Your task to perform on an android device: open chrome privacy settings Image 0: 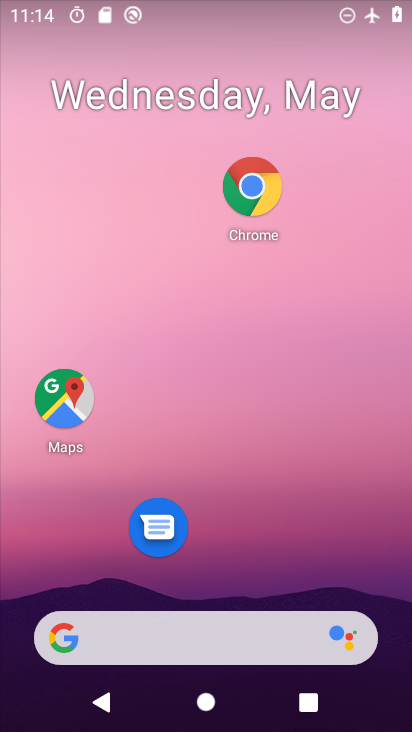
Step 0: drag from (279, 581) to (322, 8)
Your task to perform on an android device: open chrome privacy settings Image 1: 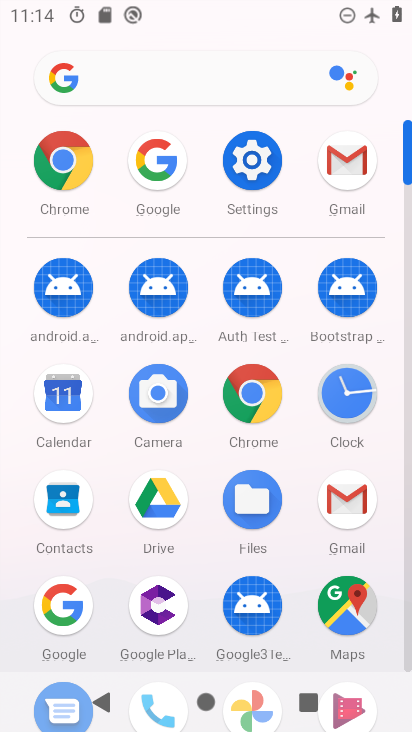
Step 1: click (39, 154)
Your task to perform on an android device: open chrome privacy settings Image 2: 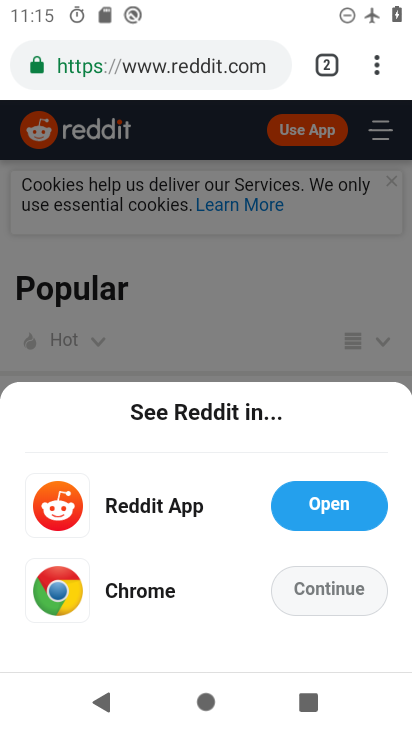
Step 2: click (378, 72)
Your task to perform on an android device: open chrome privacy settings Image 3: 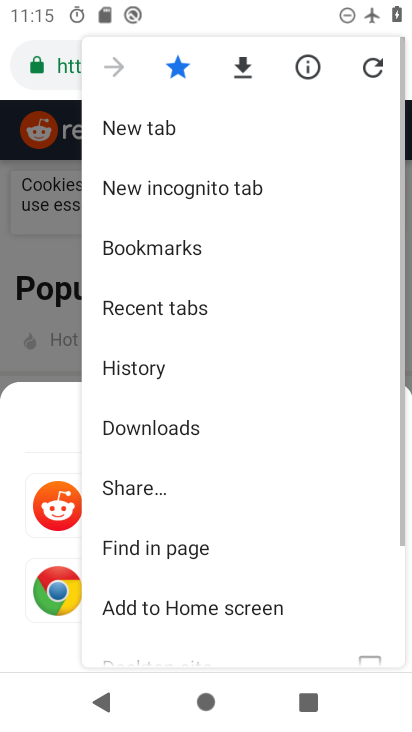
Step 3: drag from (264, 487) to (340, 16)
Your task to perform on an android device: open chrome privacy settings Image 4: 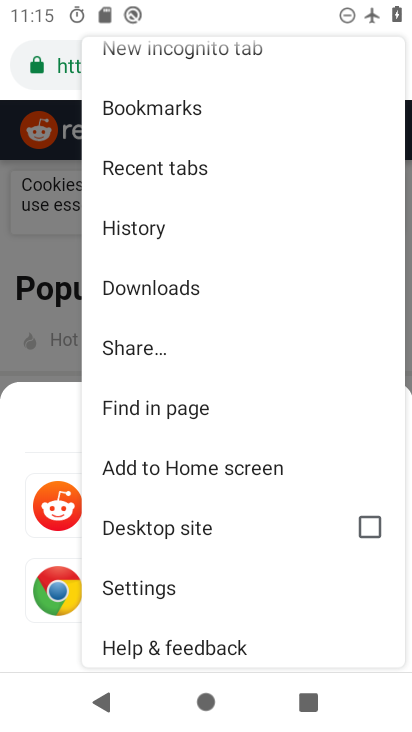
Step 4: click (175, 599)
Your task to perform on an android device: open chrome privacy settings Image 5: 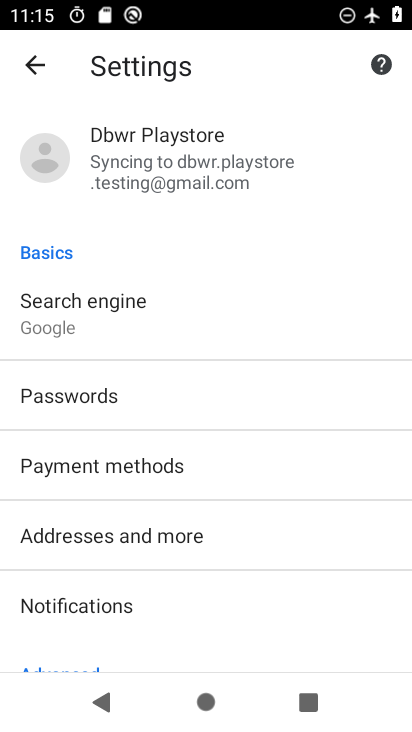
Step 5: drag from (175, 598) to (293, 179)
Your task to perform on an android device: open chrome privacy settings Image 6: 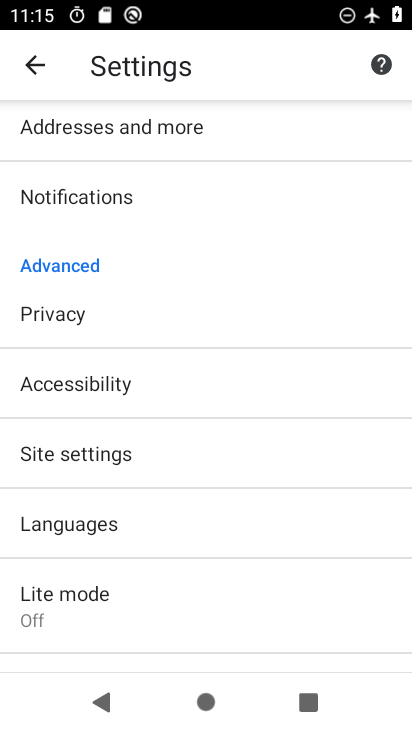
Step 6: drag from (124, 518) to (170, 360)
Your task to perform on an android device: open chrome privacy settings Image 7: 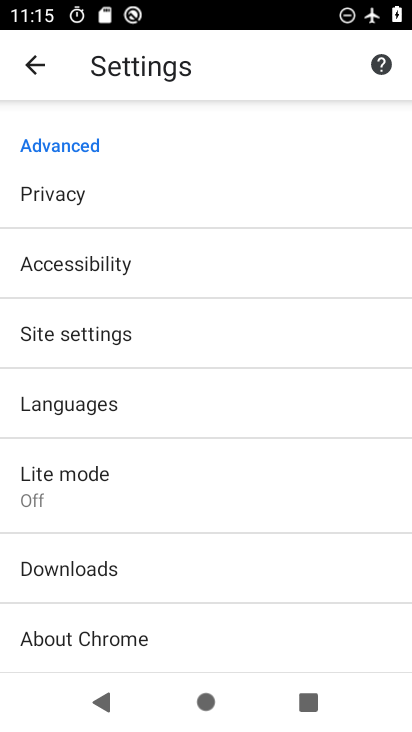
Step 7: click (138, 203)
Your task to perform on an android device: open chrome privacy settings Image 8: 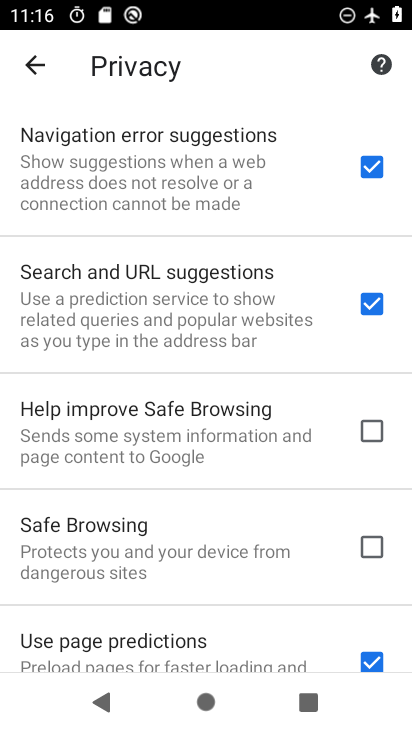
Step 8: task complete